Your task to perform on an android device: Go to network settings Image 0: 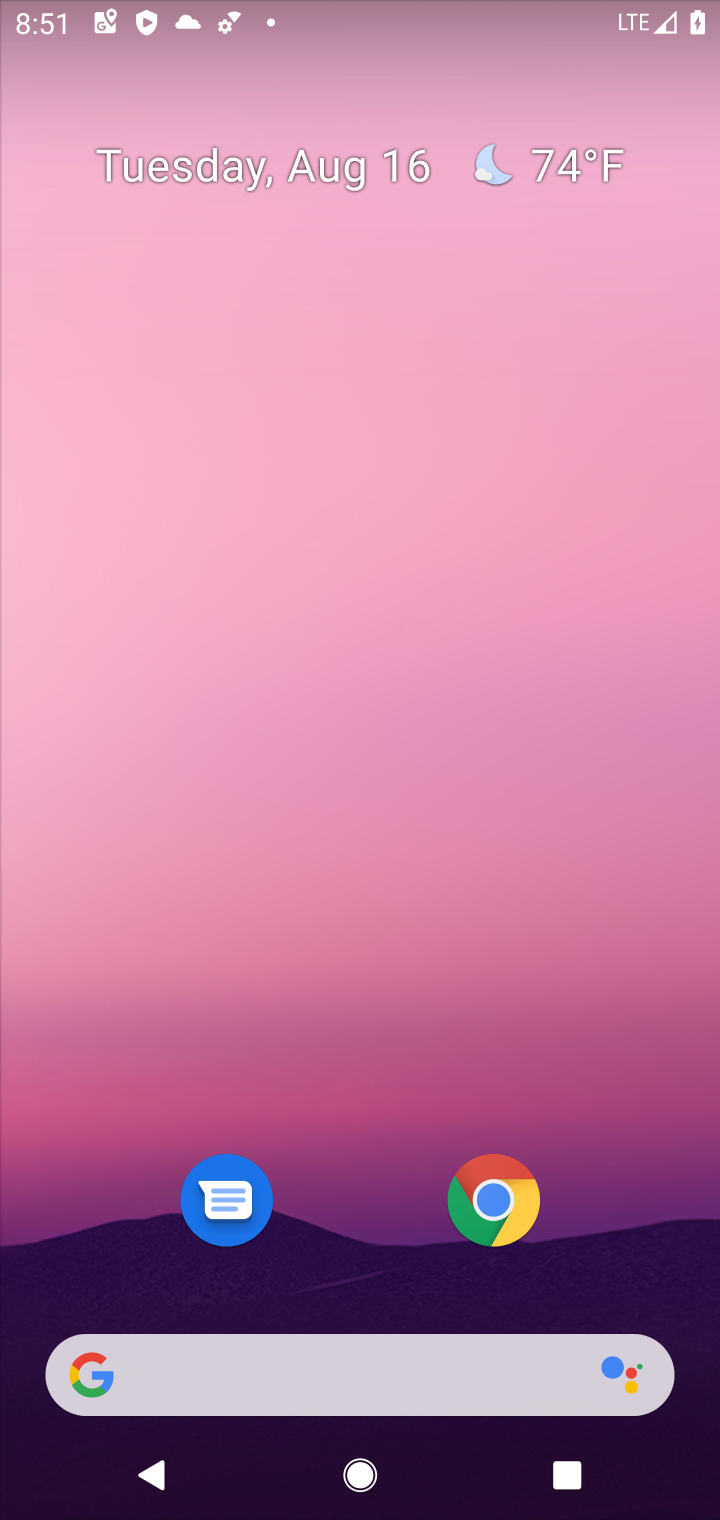
Step 0: drag from (674, 1272) to (564, 580)
Your task to perform on an android device: Go to network settings Image 1: 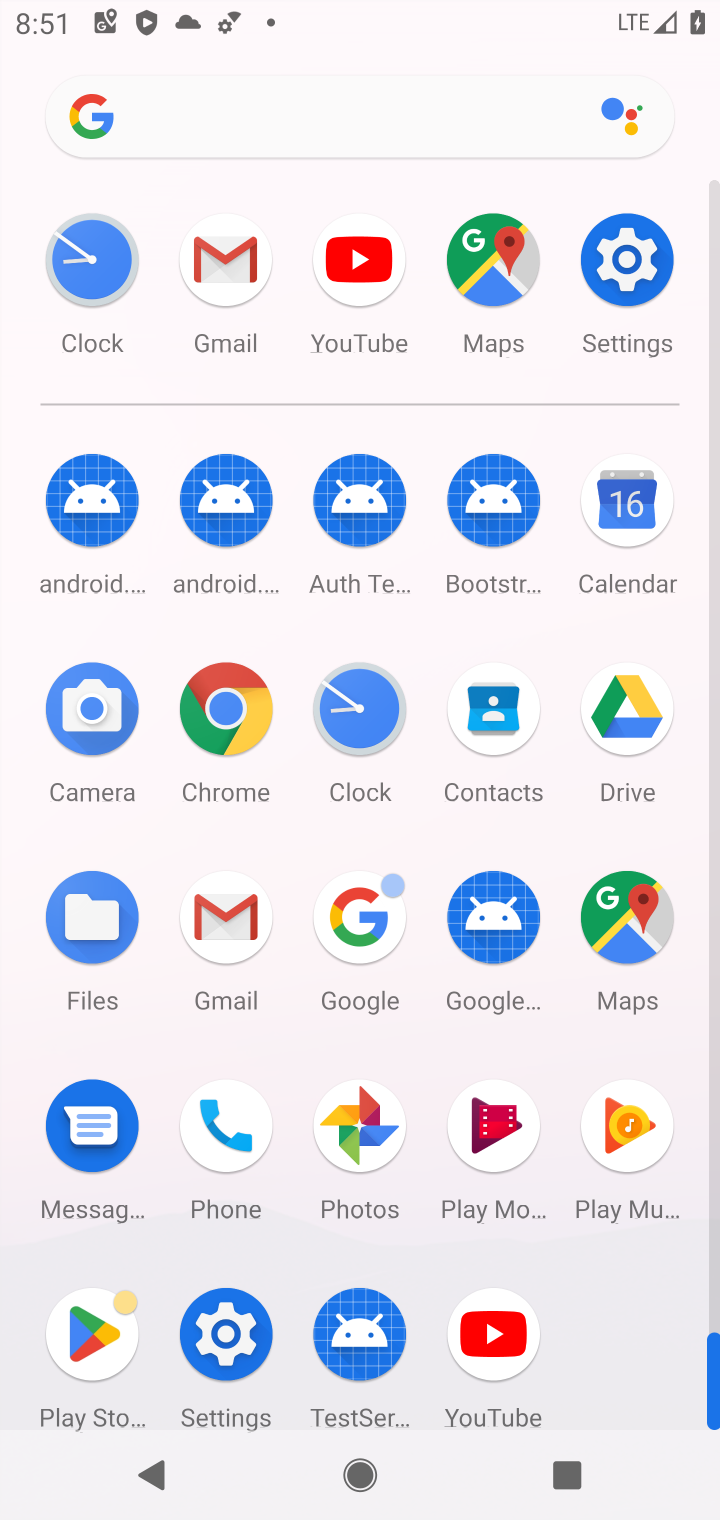
Step 1: click (224, 1340)
Your task to perform on an android device: Go to network settings Image 2: 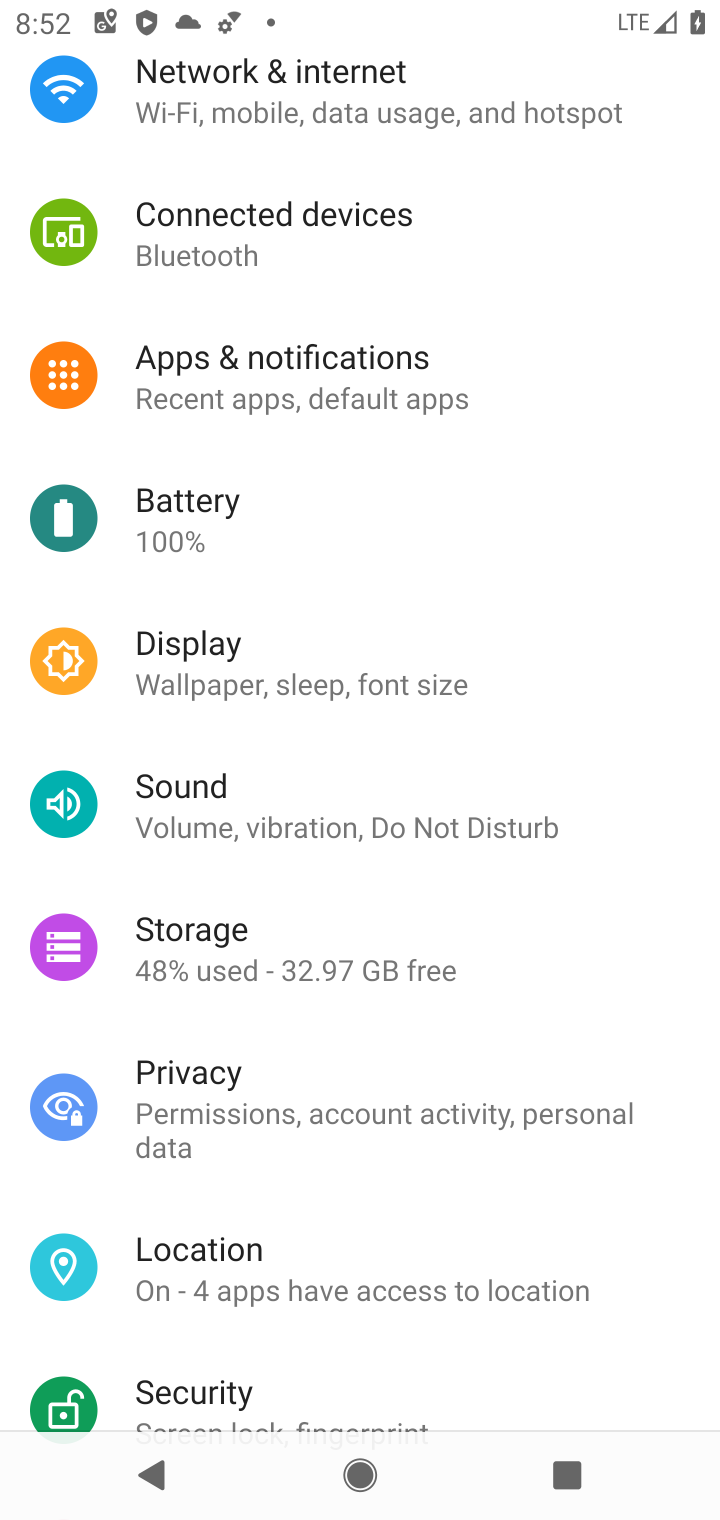
Step 2: drag from (550, 469) to (570, 871)
Your task to perform on an android device: Go to network settings Image 3: 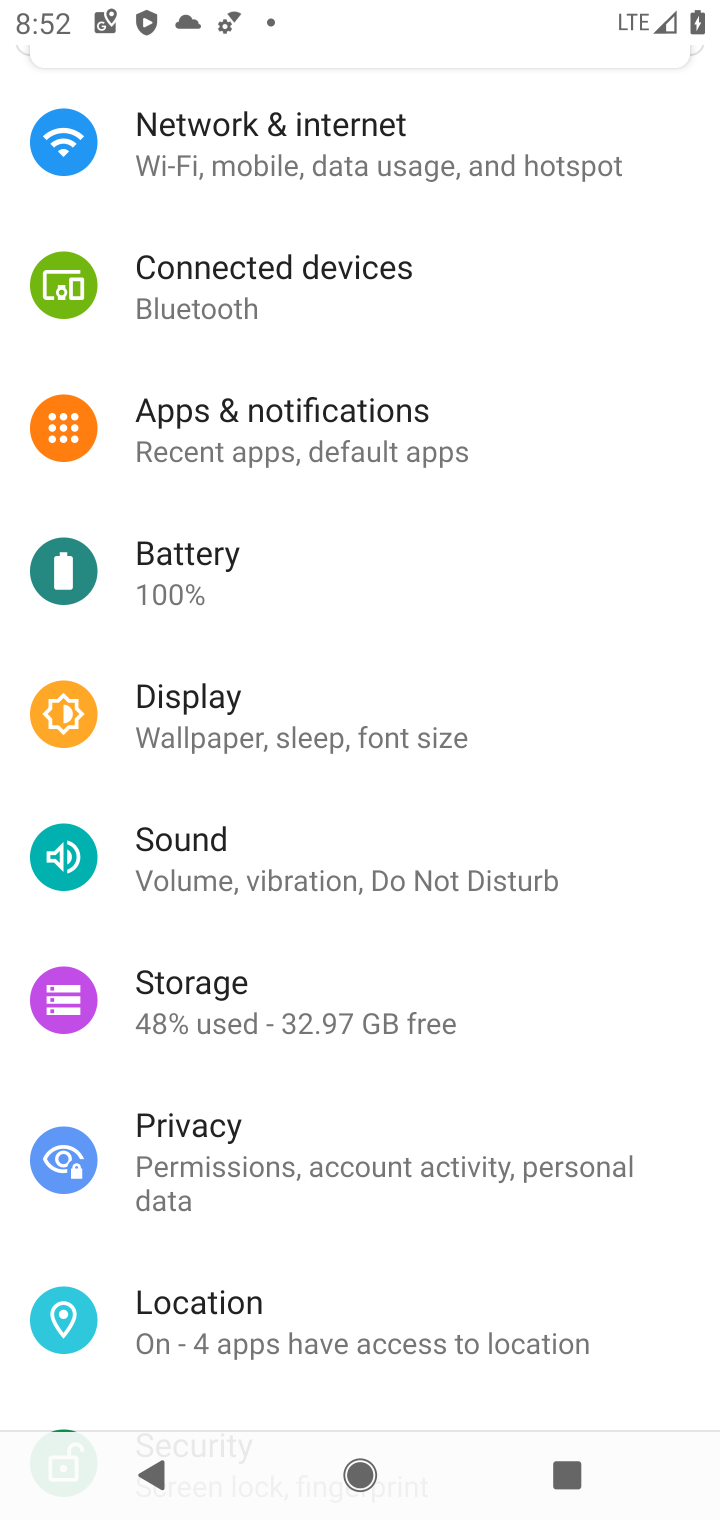
Step 3: drag from (602, 458) to (583, 717)
Your task to perform on an android device: Go to network settings Image 4: 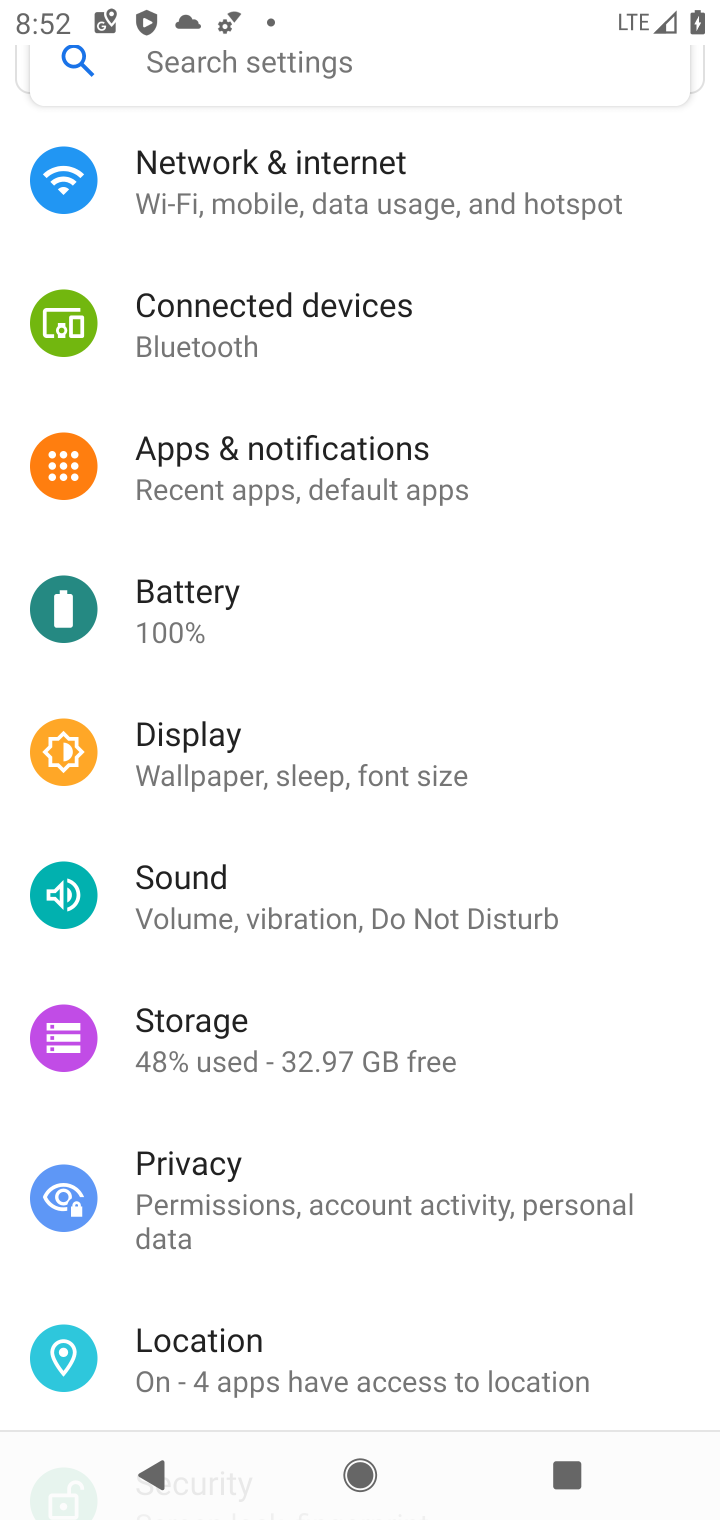
Step 4: click (208, 165)
Your task to perform on an android device: Go to network settings Image 5: 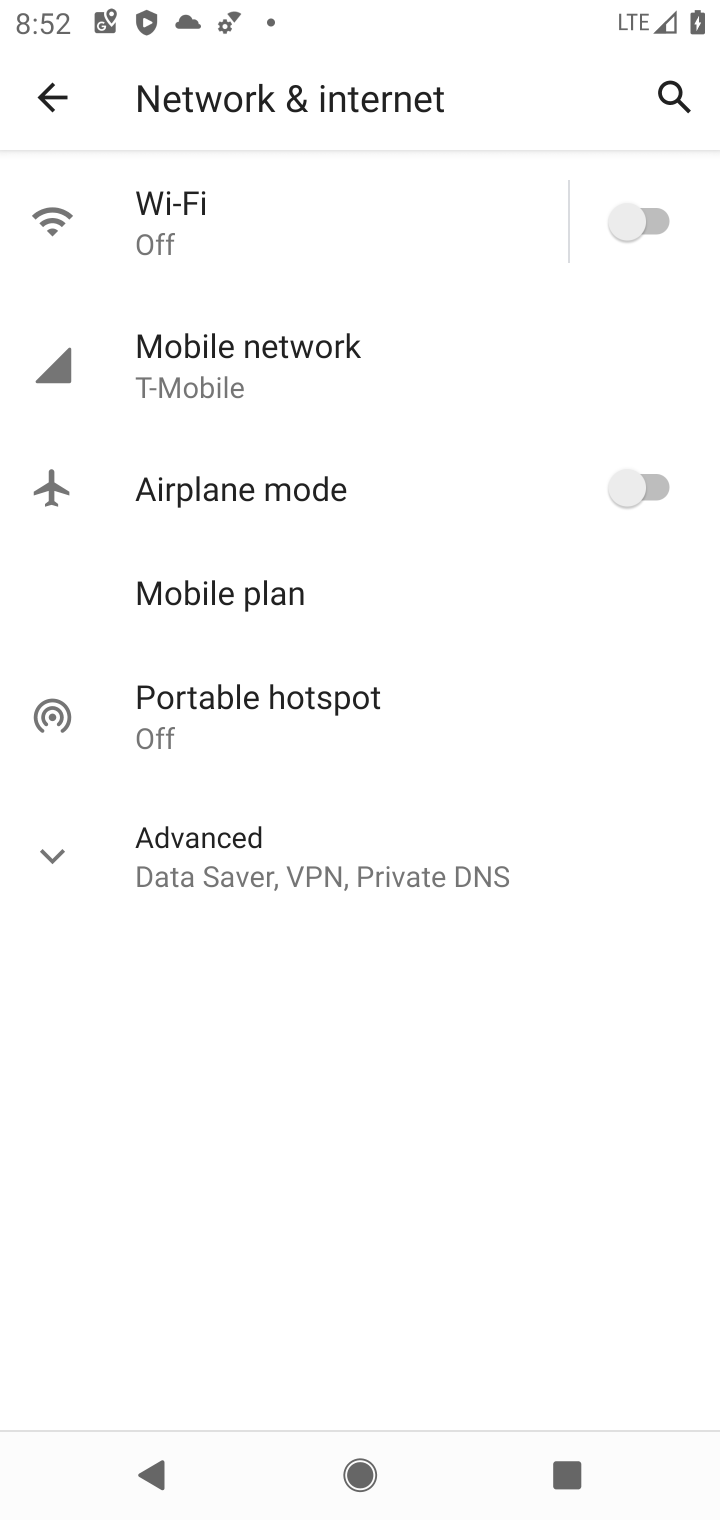
Step 5: click (231, 366)
Your task to perform on an android device: Go to network settings Image 6: 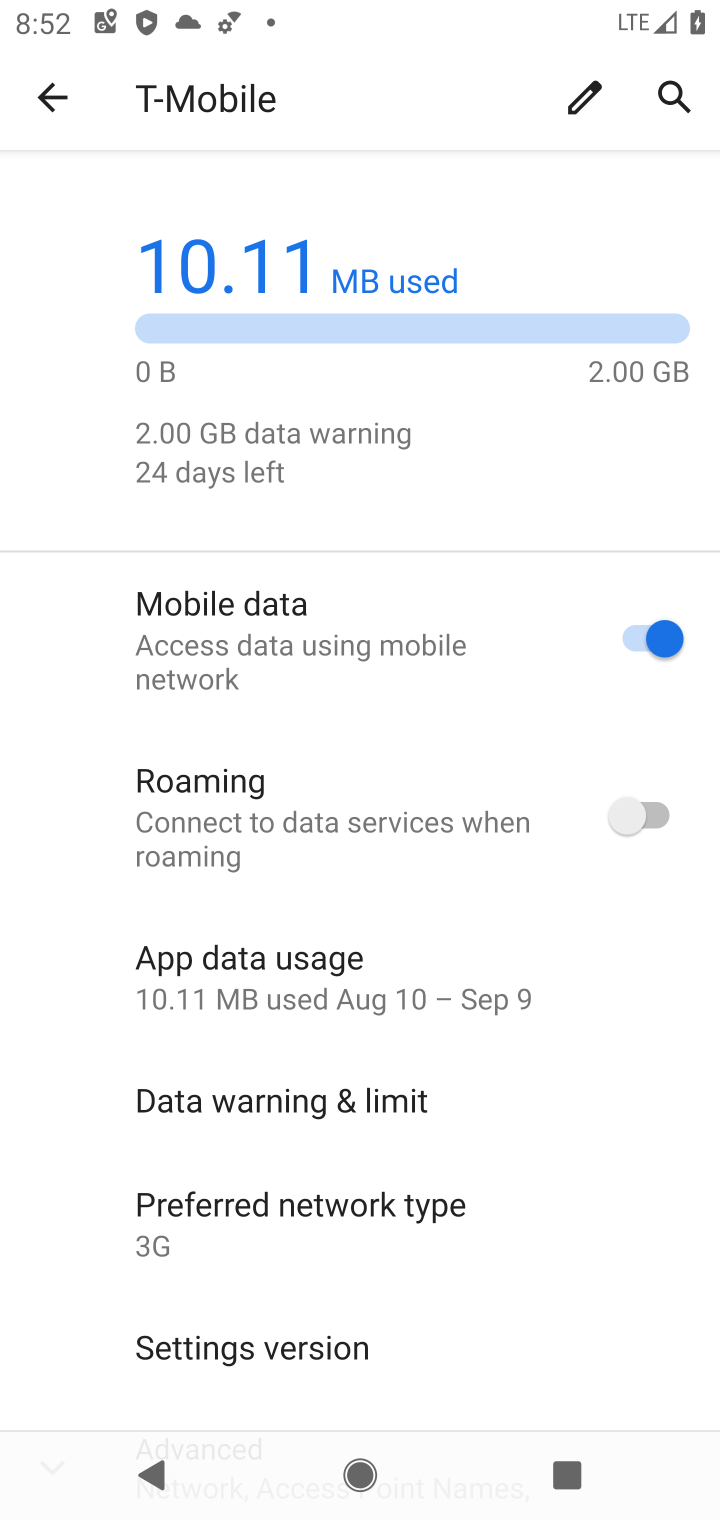
Step 6: task complete